Your task to perform on an android device: turn on wifi Image 0: 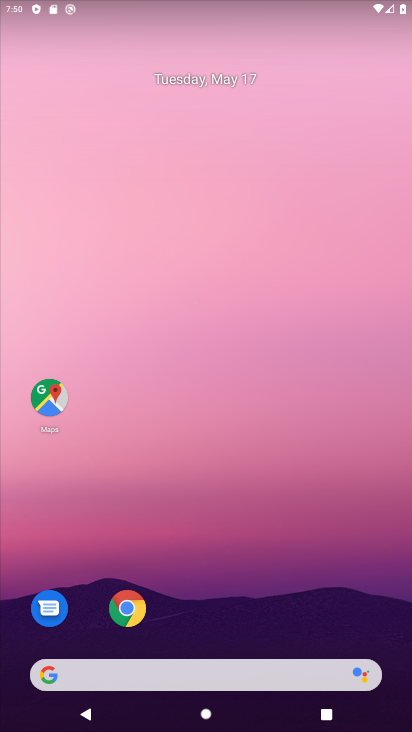
Step 0: drag from (207, 666) to (205, 283)
Your task to perform on an android device: turn on wifi Image 1: 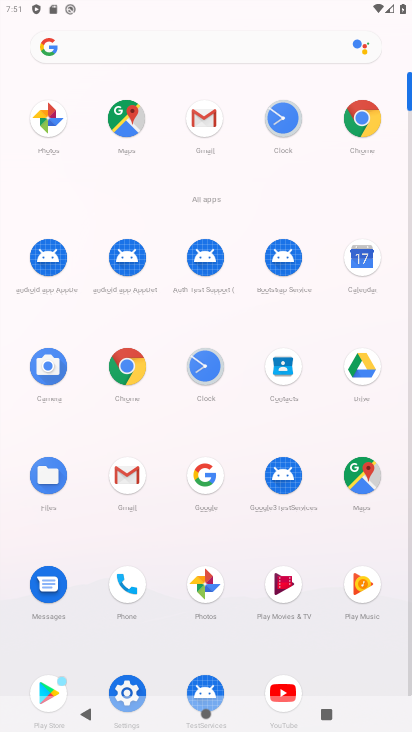
Step 1: click (124, 684)
Your task to perform on an android device: turn on wifi Image 2: 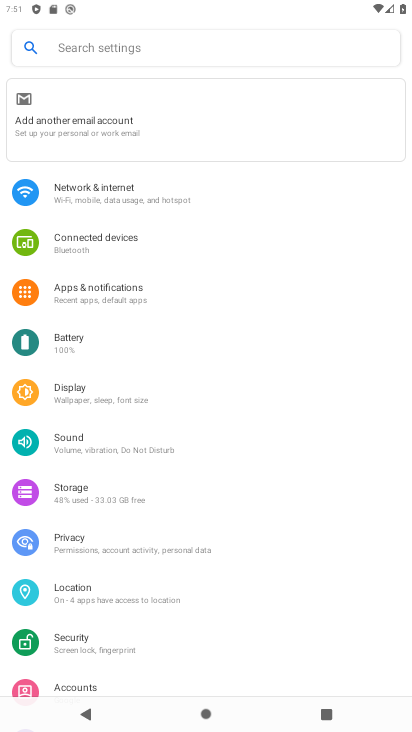
Step 2: click (153, 194)
Your task to perform on an android device: turn on wifi Image 3: 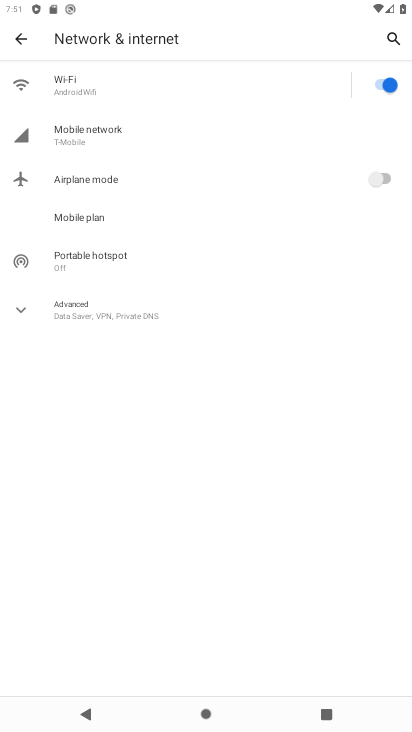
Step 3: task complete